Your task to perform on an android device: add a contact in the contacts app Image 0: 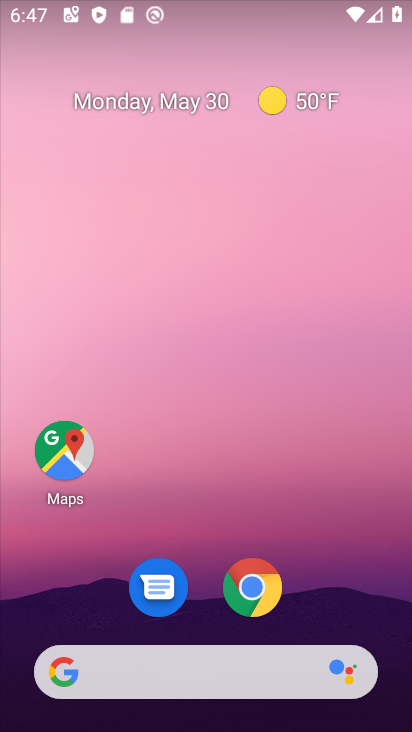
Step 0: drag from (338, 597) to (238, 0)
Your task to perform on an android device: add a contact in the contacts app Image 1: 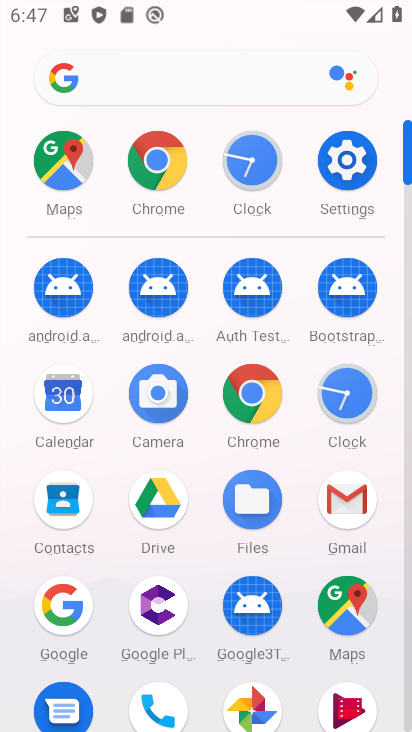
Step 1: drag from (3, 559) to (19, 198)
Your task to perform on an android device: add a contact in the contacts app Image 2: 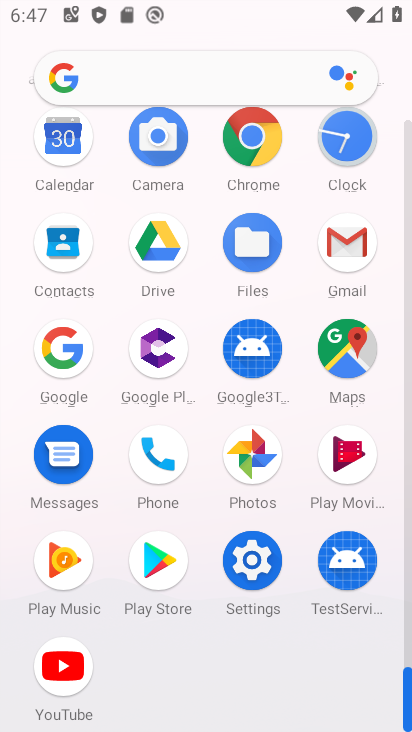
Step 2: click (60, 245)
Your task to perform on an android device: add a contact in the contacts app Image 3: 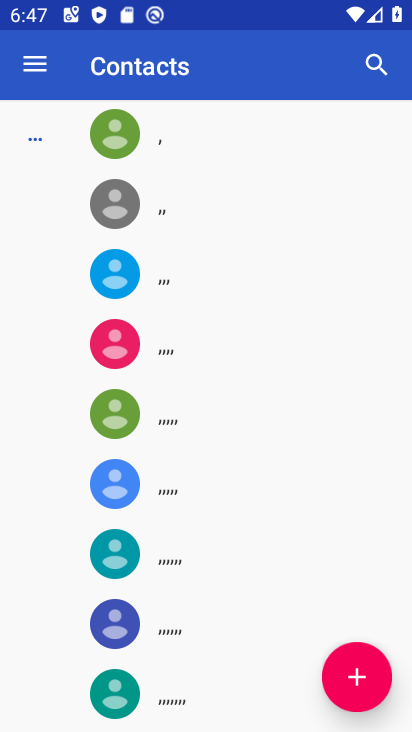
Step 3: drag from (200, 502) to (222, 203)
Your task to perform on an android device: add a contact in the contacts app Image 4: 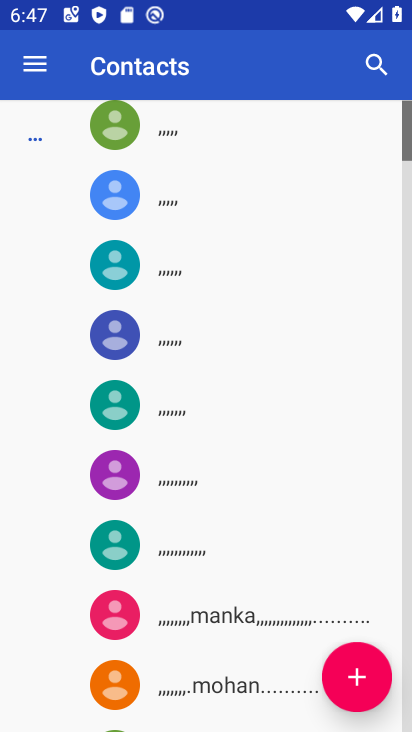
Step 4: drag from (199, 469) to (205, 175)
Your task to perform on an android device: add a contact in the contacts app Image 5: 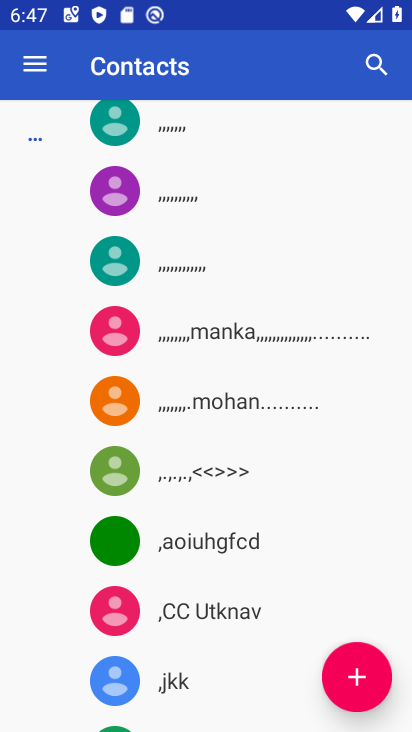
Step 5: drag from (205, 552) to (232, 186)
Your task to perform on an android device: add a contact in the contacts app Image 6: 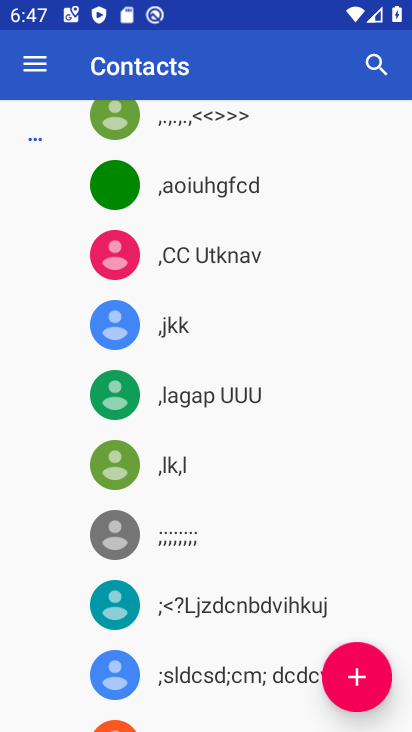
Step 6: drag from (236, 529) to (236, 176)
Your task to perform on an android device: add a contact in the contacts app Image 7: 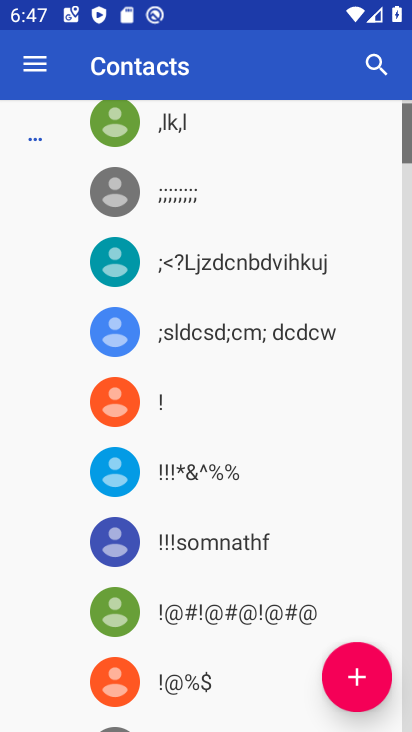
Step 7: drag from (198, 595) to (235, 296)
Your task to perform on an android device: add a contact in the contacts app Image 8: 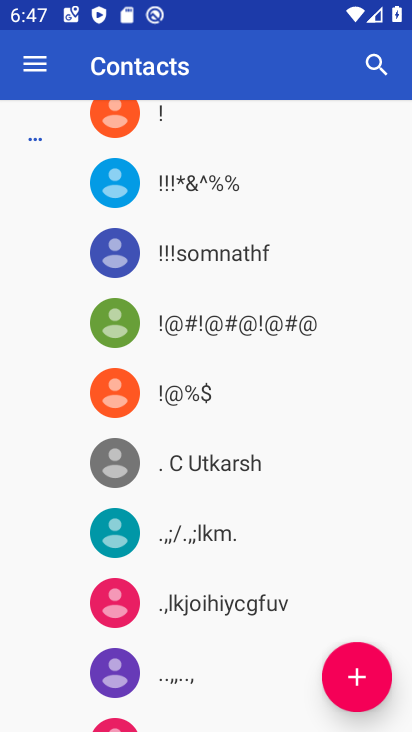
Step 8: click (353, 675)
Your task to perform on an android device: add a contact in the contacts app Image 9: 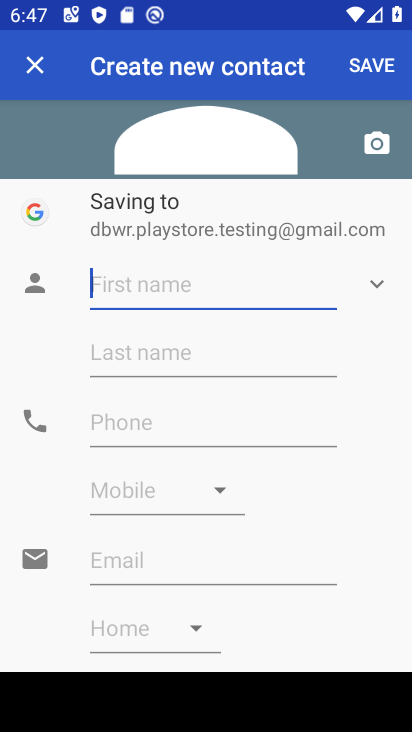
Step 9: type "Djkjyu"
Your task to perform on an android device: add a contact in the contacts app Image 10: 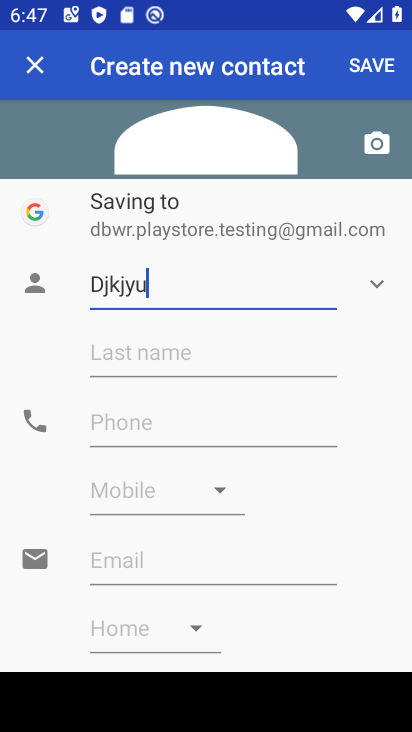
Step 10: type ""
Your task to perform on an android device: add a contact in the contacts app Image 11: 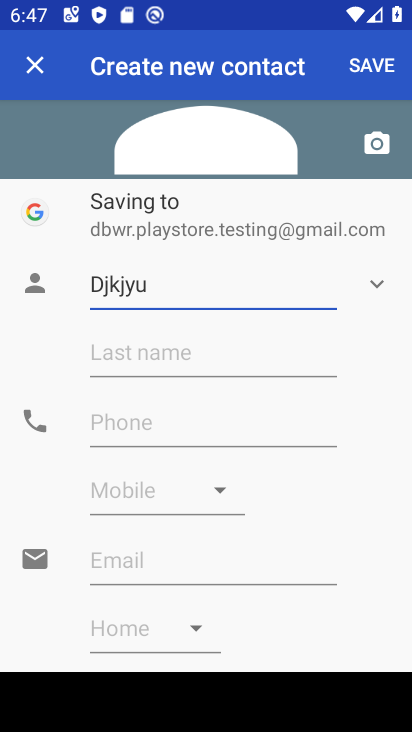
Step 11: click (132, 425)
Your task to perform on an android device: add a contact in the contacts app Image 12: 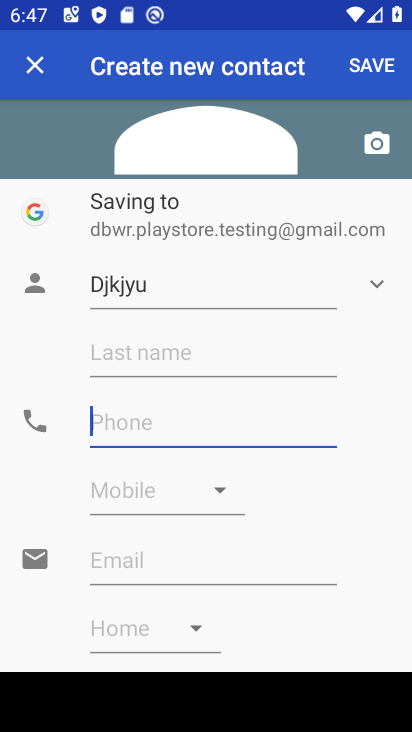
Step 12: type "45678765"
Your task to perform on an android device: add a contact in the contacts app Image 13: 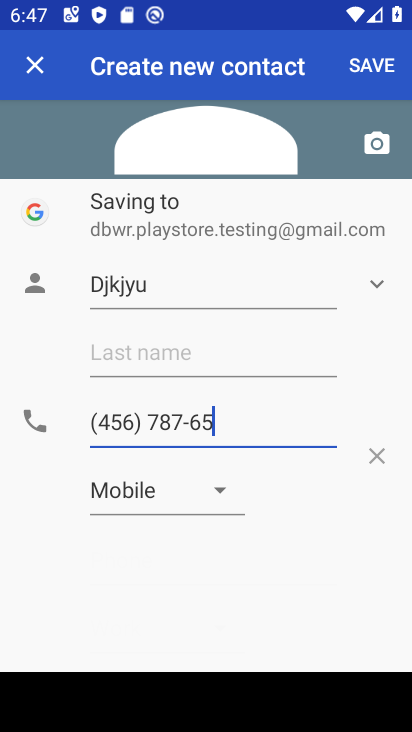
Step 13: type ""
Your task to perform on an android device: add a contact in the contacts app Image 14: 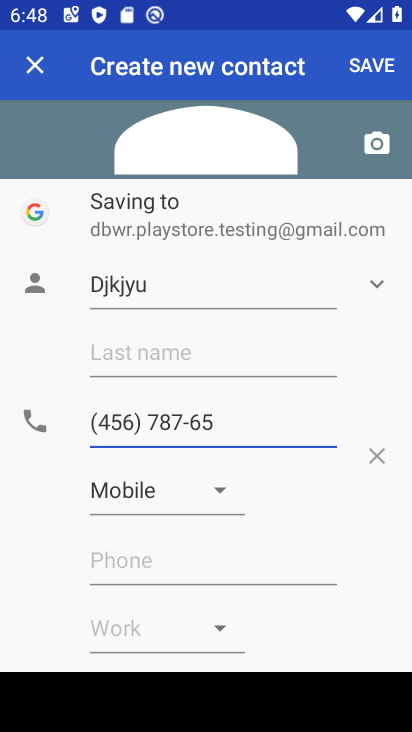
Step 14: click (371, 49)
Your task to perform on an android device: add a contact in the contacts app Image 15: 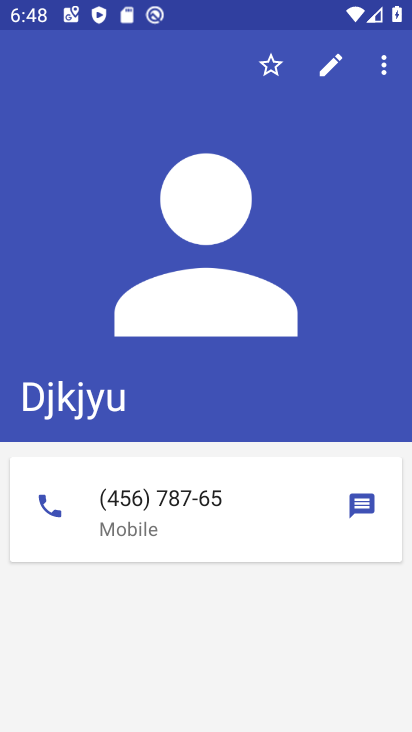
Step 15: task complete